Your task to perform on an android device: Add "dell xps" to the cart on walmart.com Image 0: 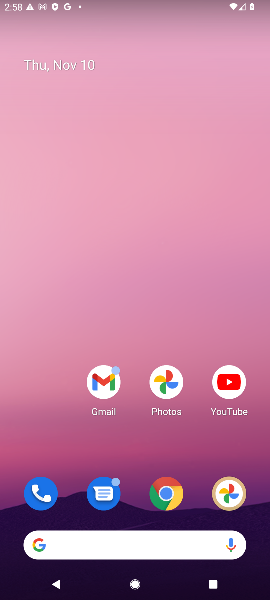
Step 0: drag from (116, 512) to (134, 102)
Your task to perform on an android device: Add "dell xps" to the cart on walmart.com Image 1: 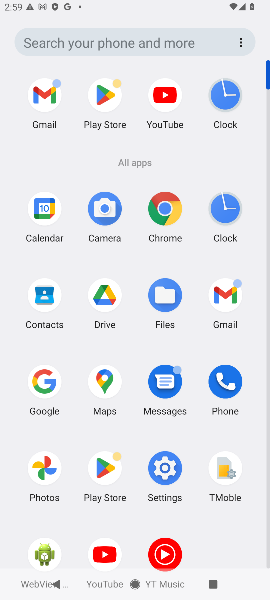
Step 1: click (37, 378)
Your task to perform on an android device: Add "dell xps" to the cart on walmart.com Image 2: 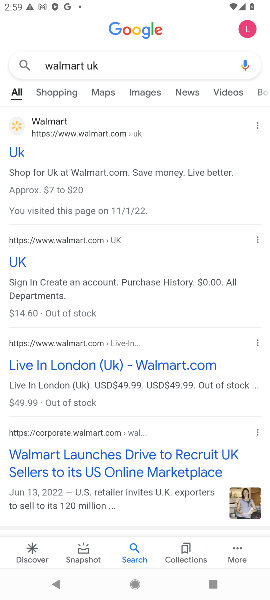
Step 2: click (18, 120)
Your task to perform on an android device: Add "dell xps" to the cart on walmart.com Image 3: 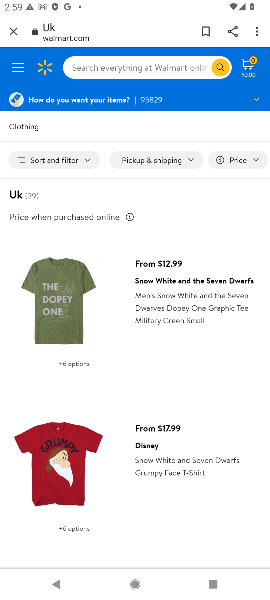
Step 3: click (128, 65)
Your task to perform on an android device: Add "dell xps" to the cart on walmart.com Image 4: 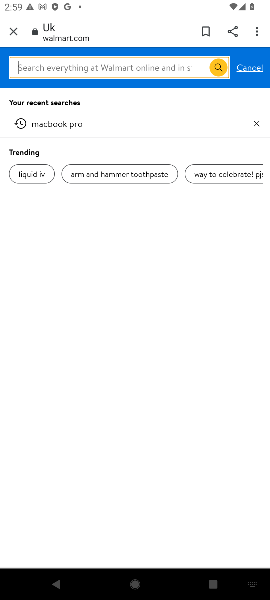
Step 4: click (99, 61)
Your task to perform on an android device: Add "dell xps" to the cart on walmart.com Image 5: 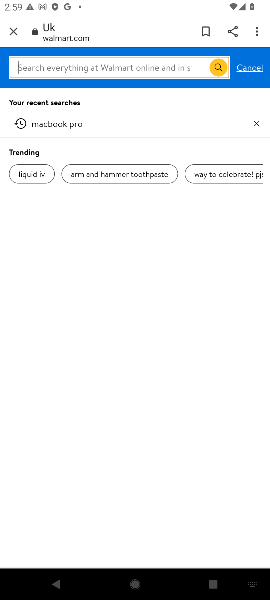
Step 5: type "dell xps "
Your task to perform on an android device: Add "dell xps" to the cart on walmart.com Image 6: 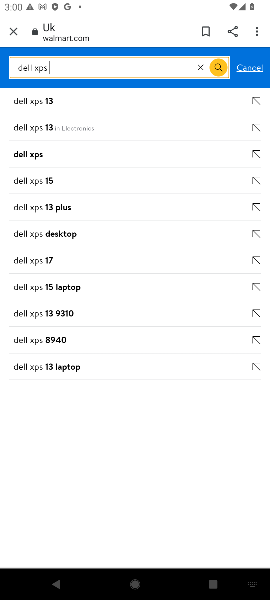
Step 6: click (31, 101)
Your task to perform on an android device: Add "dell xps" to the cart on walmart.com Image 7: 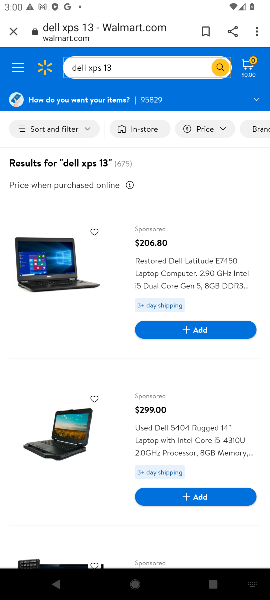
Step 7: click (195, 320)
Your task to perform on an android device: Add "dell xps" to the cart on walmart.com Image 8: 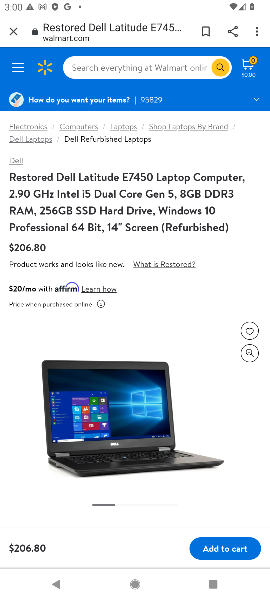
Step 8: click (223, 543)
Your task to perform on an android device: Add "dell xps" to the cart on walmart.com Image 9: 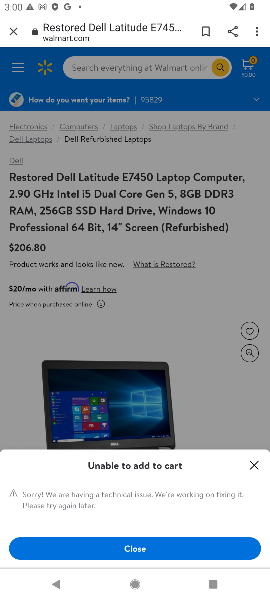
Step 9: click (248, 461)
Your task to perform on an android device: Add "dell xps" to the cart on walmart.com Image 10: 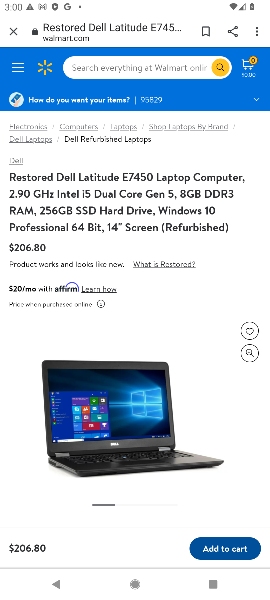
Step 10: task complete